Your task to perform on an android device: change keyboard looks Image 0: 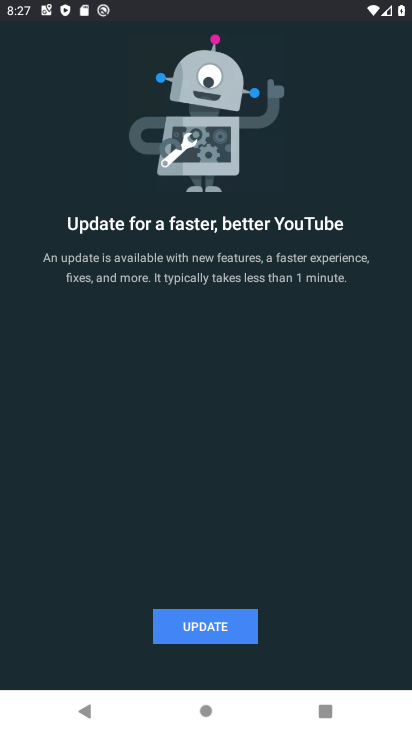
Step 0: press back button
Your task to perform on an android device: change keyboard looks Image 1: 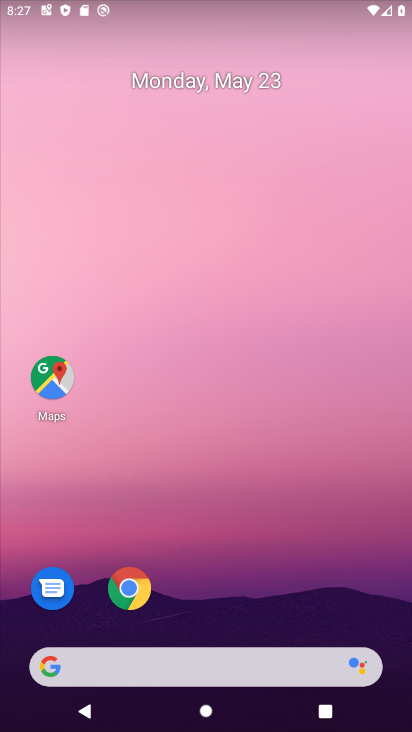
Step 1: drag from (404, 712) to (334, 89)
Your task to perform on an android device: change keyboard looks Image 2: 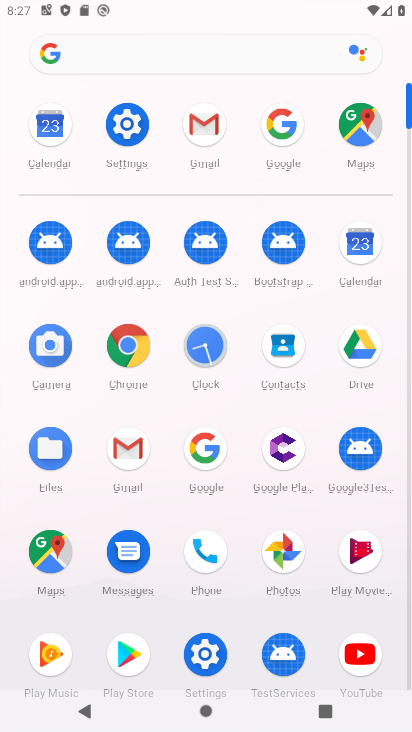
Step 2: click (117, 127)
Your task to perform on an android device: change keyboard looks Image 3: 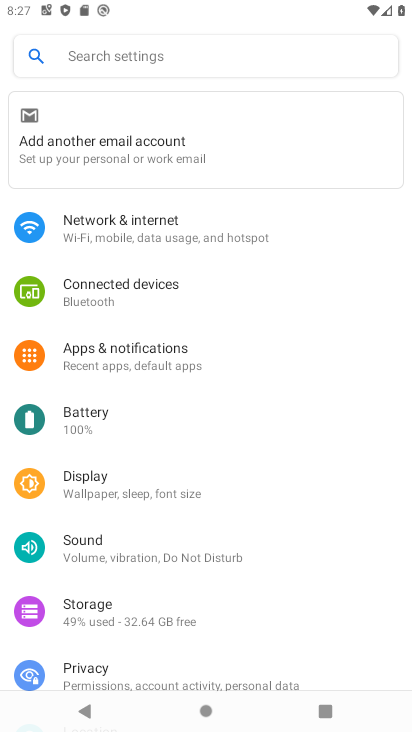
Step 3: drag from (350, 655) to (339, 326)
Your task to perform on an android device: change keyboard looks Image 4: 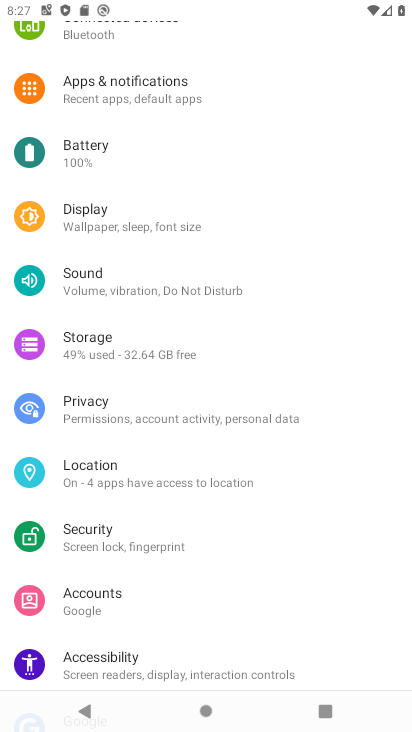
Step 4: drag from (303, 631) to (310, 328)
Your task to perform on an android device: change keyboard looks Image 5: 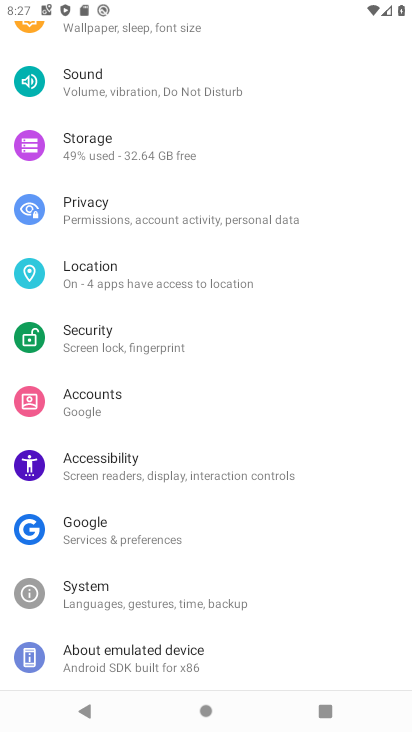
Step 5: click (76, 598)
Your task to perform on an android device: change keyboard looks Image 6: 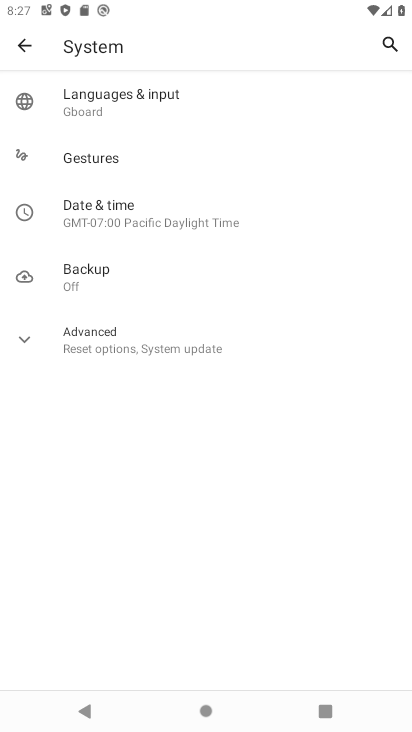
Step 6: click (92, 95)
Your task to perform on an android device: change keyboard looks Image 7: 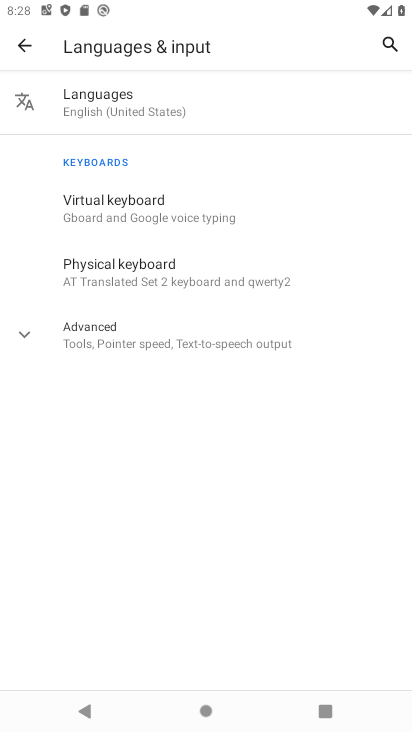
Step 7: click (82, 206)
Your task to perform on an android device: change keyboard looks Image 8: 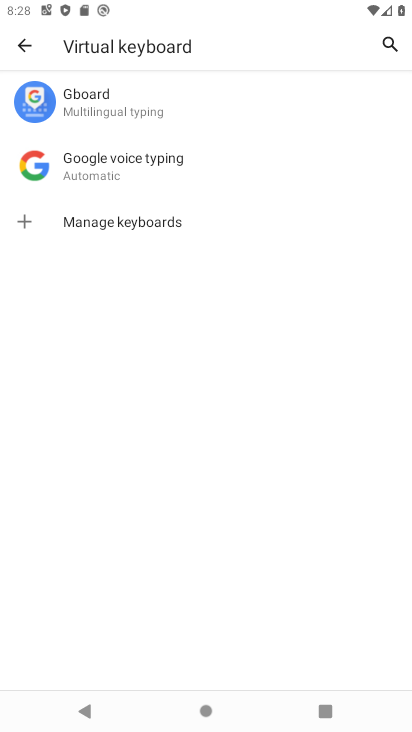
Step 8: click (88, 92)
Your task to perform on an android device: change keyboard looks Image 9: 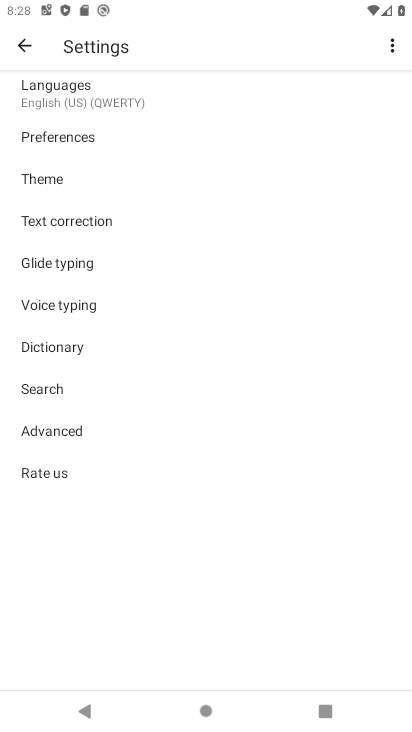
Step 9: click (51, 177)
Your task to perform on an android device: change keyboard looks Image 10: 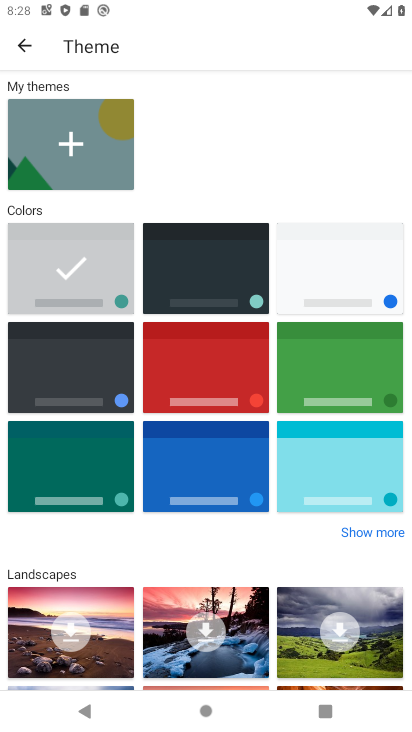
Step 10: click (88, 470)
Your task to perform on an android device: change keyboard looks Image 11: 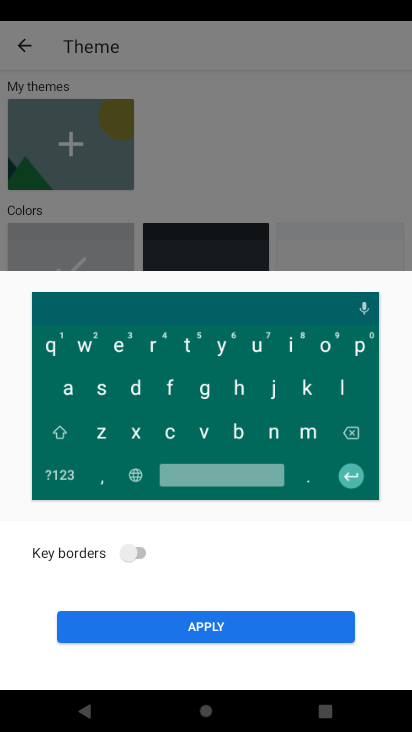
Step 11: click (142, 552)
Your task to perform on an android device: change keyboard looks Image 12: 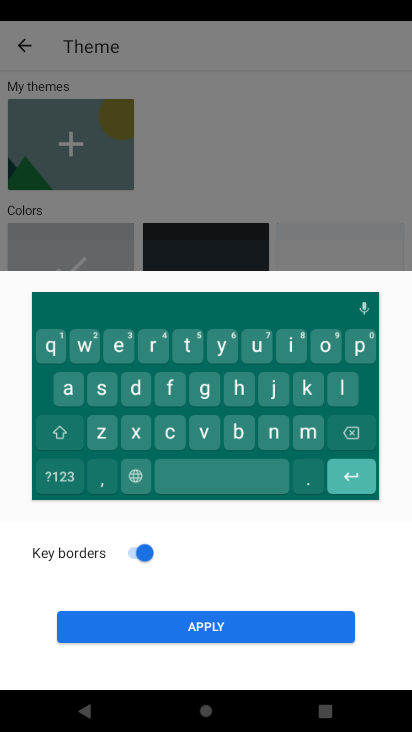
Step 12: click (258, 623)
Your task to perform on an android device: change keyboard looks Image 13: 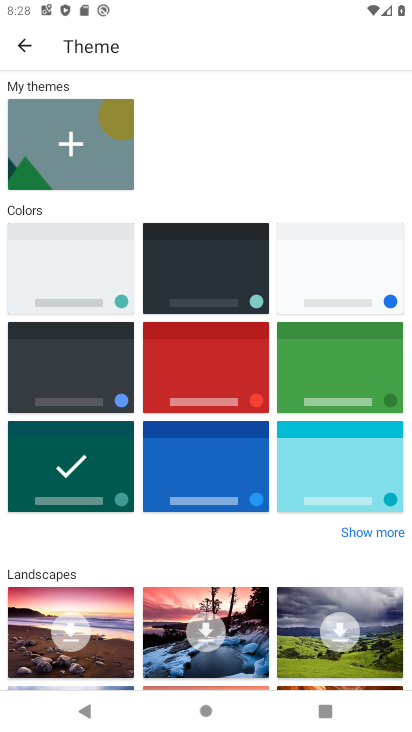
Step 13: task complete